Your task to perform on an android device: turn smart compose on in the gmail app Image 0: 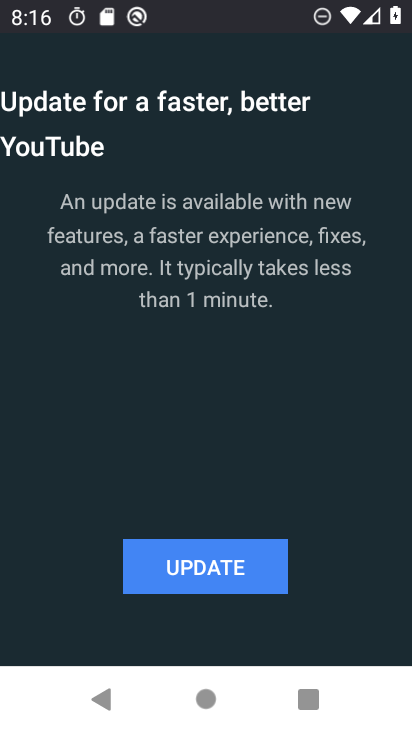
Step 0: press back button
Your task to perform on an android device: turn smart compose on in the gmail app Image 1: 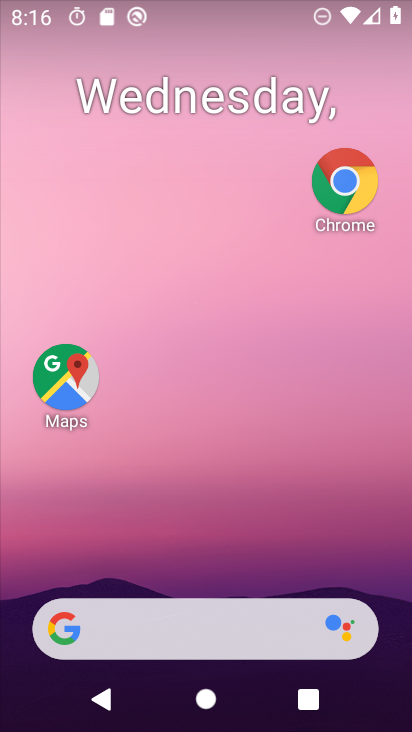
Step 1: drag from (226, 666) to (193, 283)
Your task to perform on an android device: turn smart compose on in the gmail app Image 2: 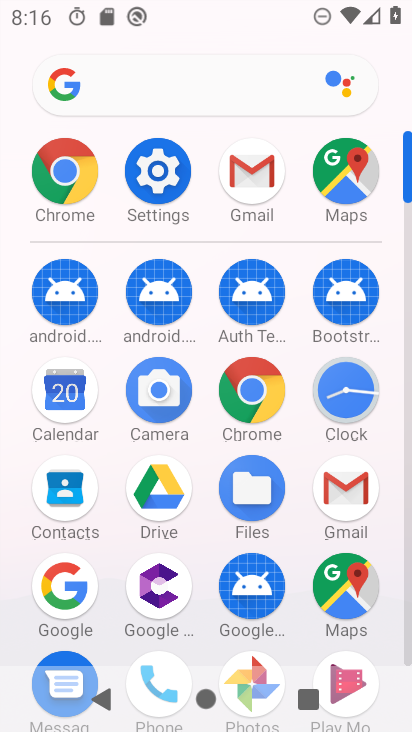
Step 2: click (334, 503)
Your task to perform on an android device: turn smart compose on in the gmail app Image 3: 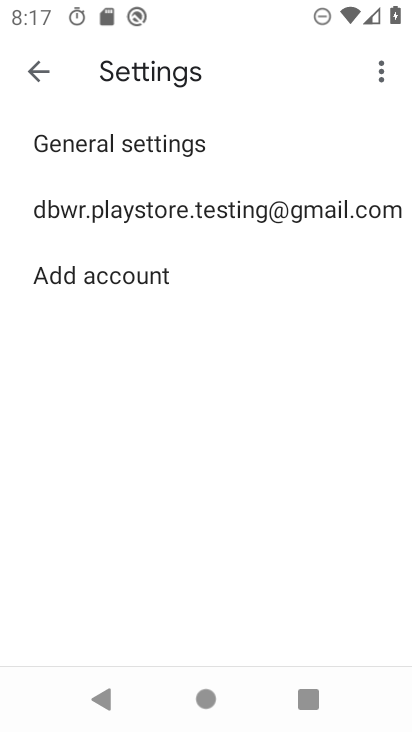
Step 3: click (151, 206)
Your task to perform on an android device: turn smart compose on in the gmail app Image 4: 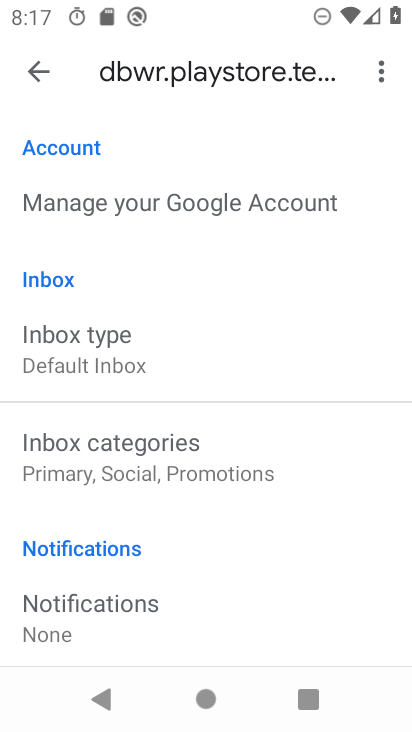
Step 4: drag from (150, 589) to (161, 249)
Your task to perform on an android device: turn smart compose on in the gmail app Image 5: 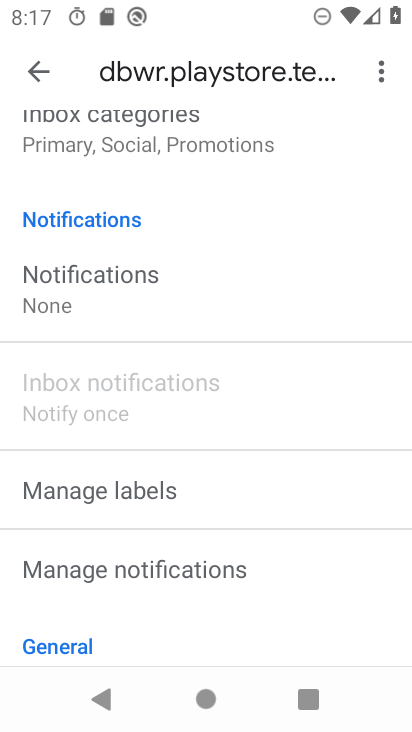
Step 5: drag from (116, 536) to (130, 77)
Your task to perform on an android device: turn smart compose on in the gmail app Image 6: 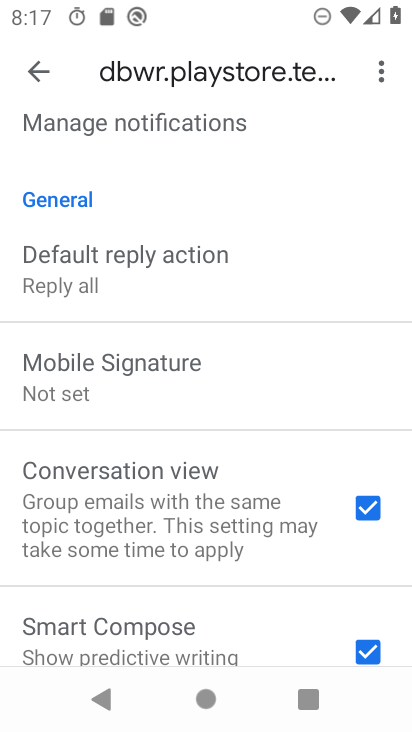
Step 6: drag from (131, 528) to (138, 423)
Your task to perform on an android device: turn smart compose on in the gmail app Image 7: 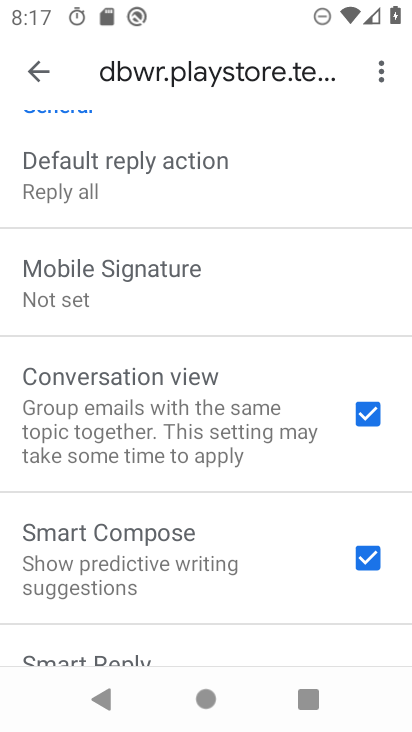
Step 7: click (371, 566)
Your task to perform on an android device: turn smart compose on in the gmail app Image 8: 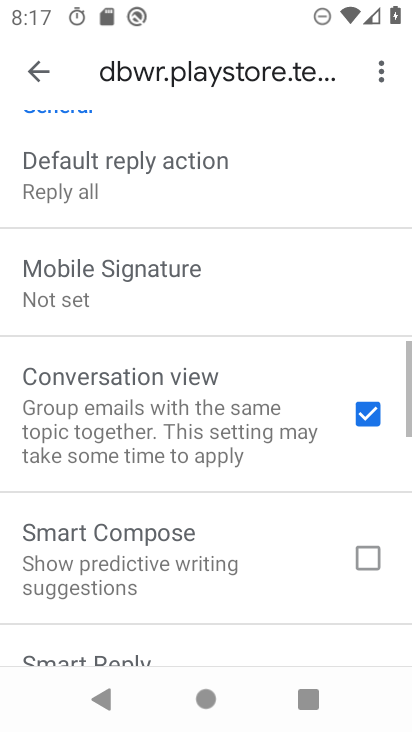
Step 8: click (369, 564)
Your task to perform on an android device: turn smart compose on in the gmail app Image 9: 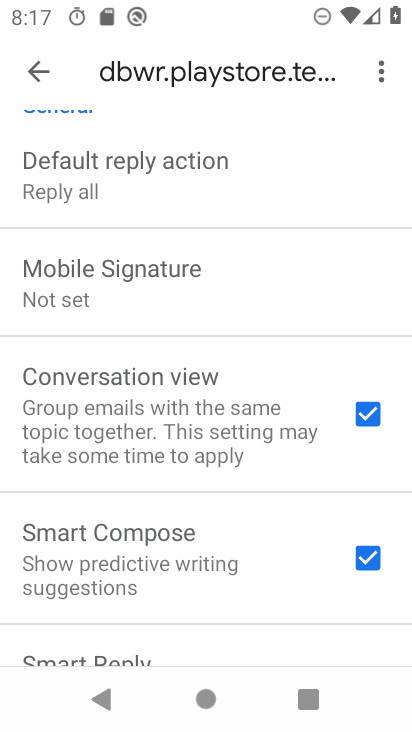
Step 9: task complete